Your task to perform on an android device: open the mobile data screen to see how much data has been used Image 0: 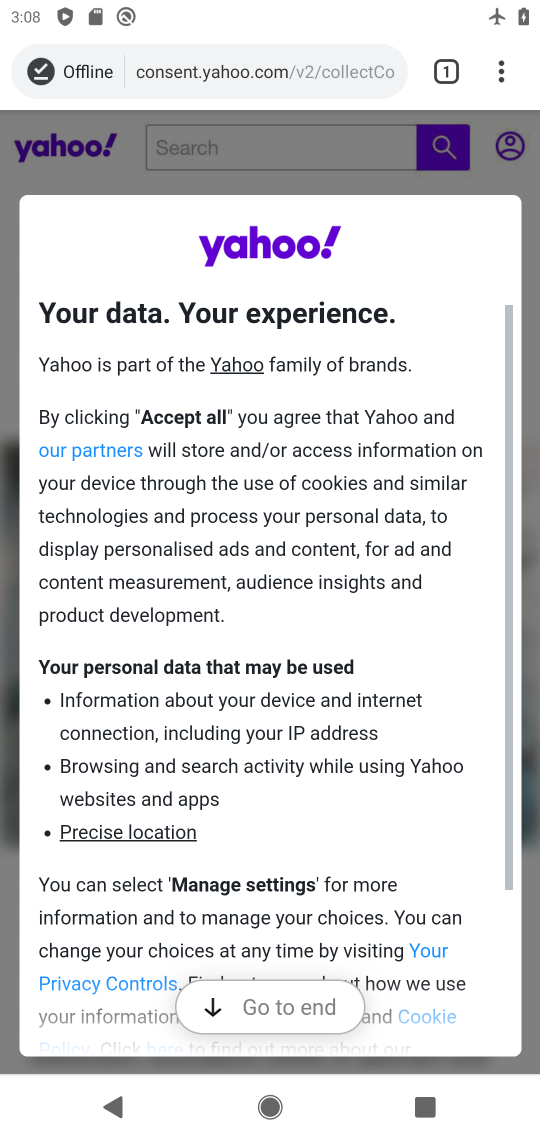
Step 0: press home button
Your task to perform on an android device: open the mobile data screen to see how much data has been used Image 1: 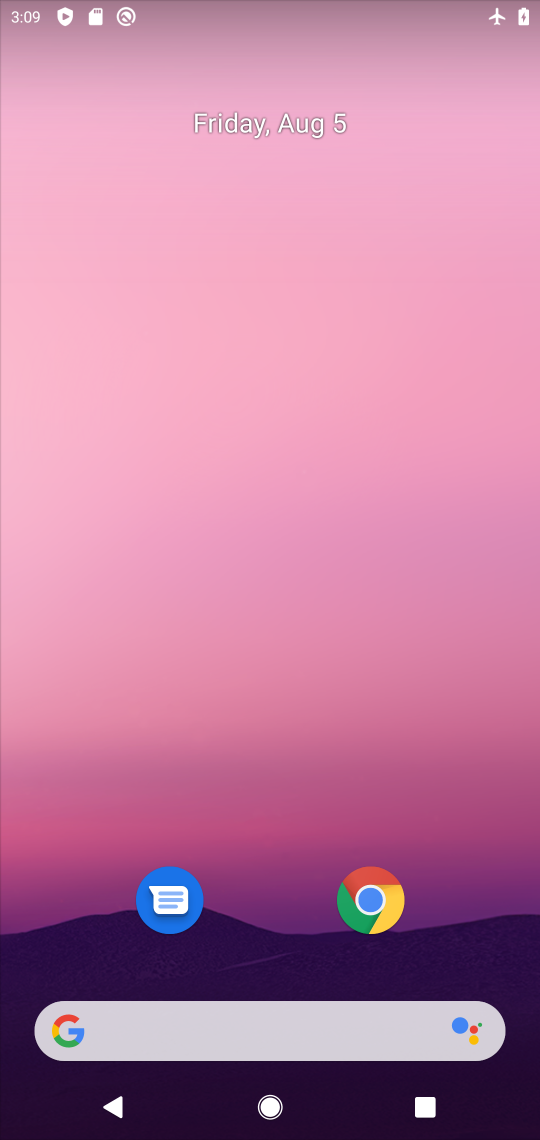
Step 1: drag from (344, 840) to (286, 257)
Your task to perform on an android device: open the mobile data screen to see how much data has been used Image 2: 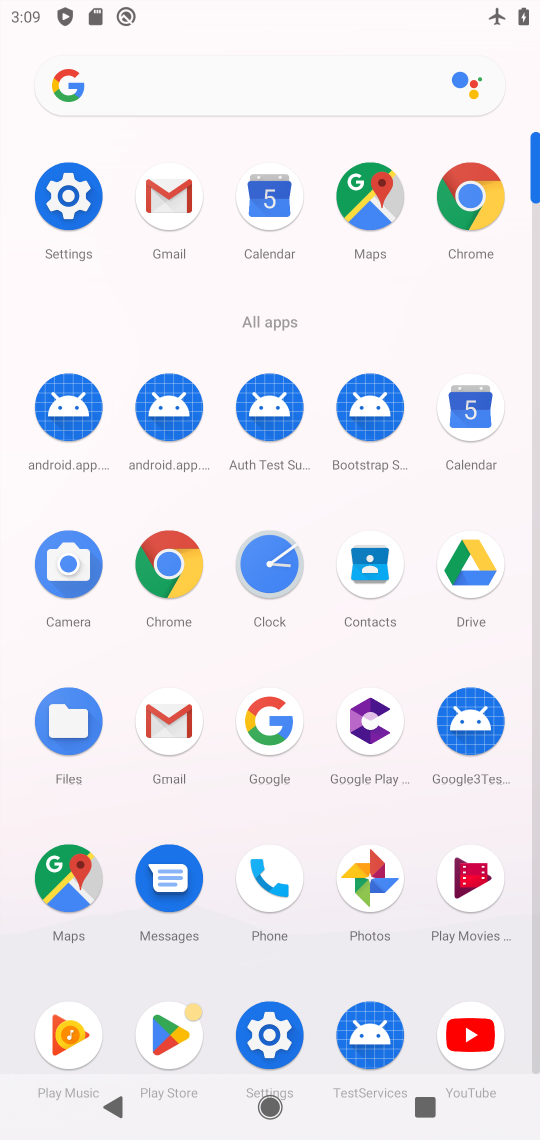
Step 2: click (68, 195)
Your task to perform on an android device: open the mobile data screen to see how much data has been used Image 3: 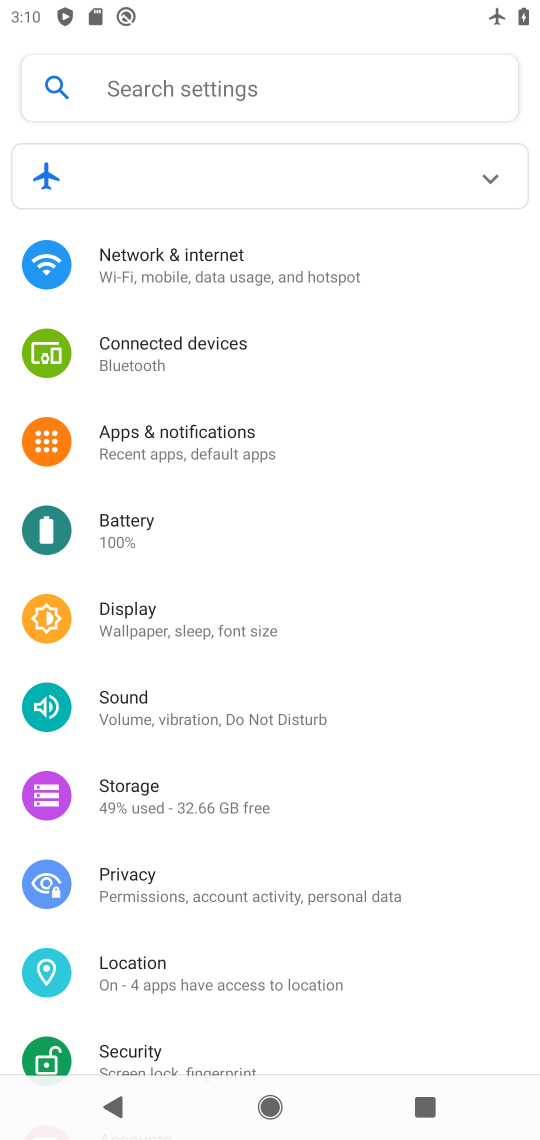
Step 3: click (186, 281)
Your task to perform on an android device: open the mobile data screen to see how much data has been used Image 4: 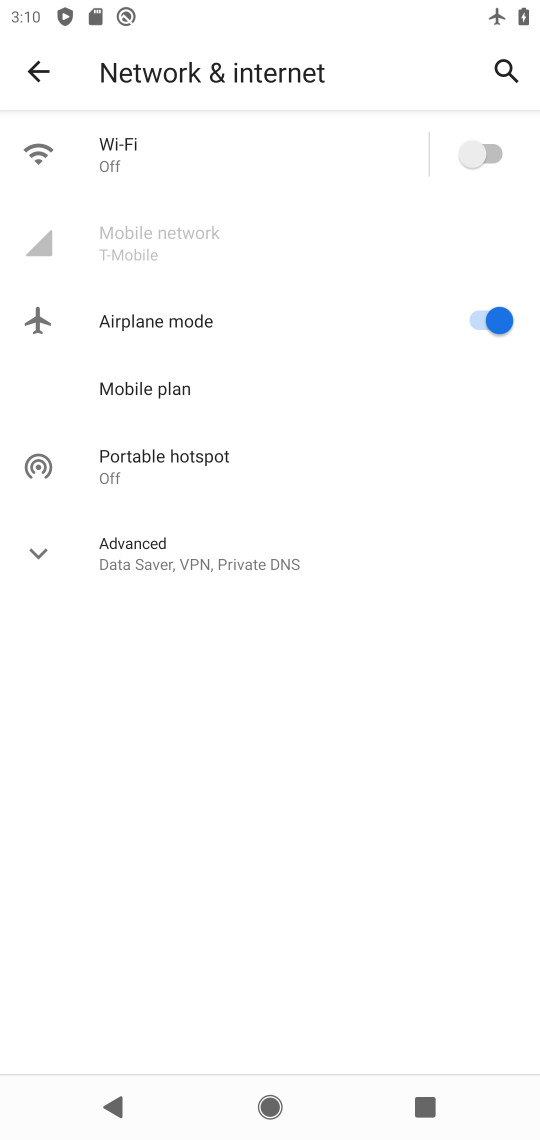
Step 4: click (141, 234)
Your task to perform on an android device: open the mobile data screen to see how much data has been used Image 5: 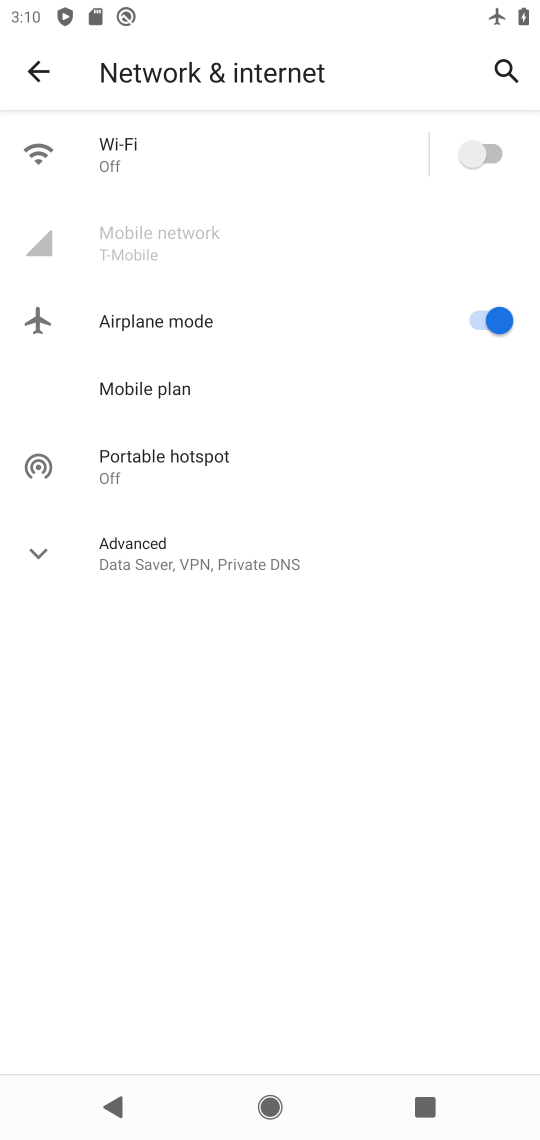
Step 5: drag from (350, 84) to (233, 546)
Your task to perform on an android device: open the mobile data screen to see how much data has been used Image 6: 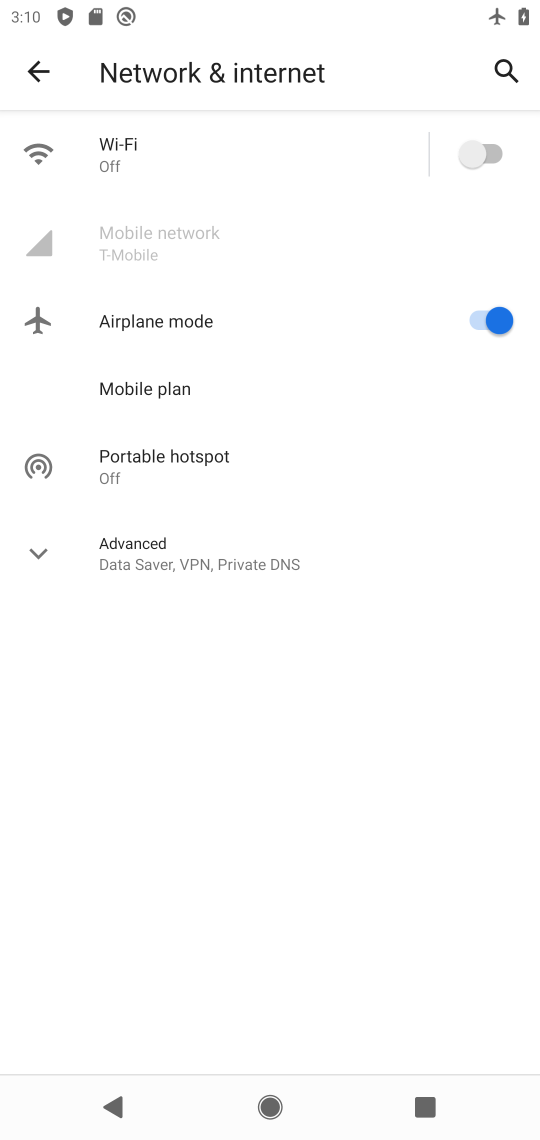
Step 6: click (502, 322)
Your task to perform on an android device: open the mobile data screen to see how much data has been used Image 7: 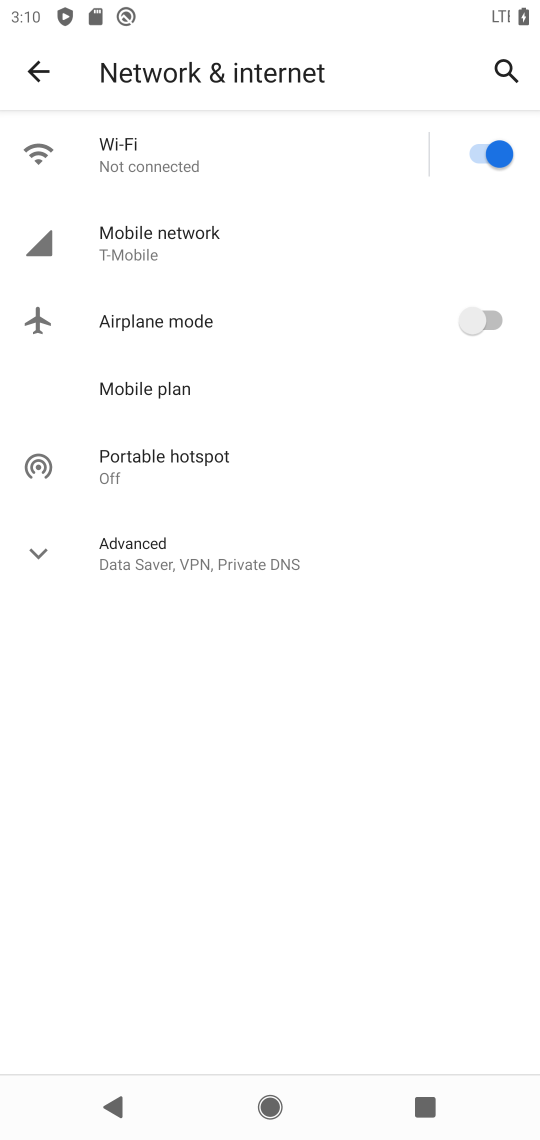
Step 7: click (139, 245)
Your task to perform on an android device: open the mobile data screen to see how much data has been used Image 8: 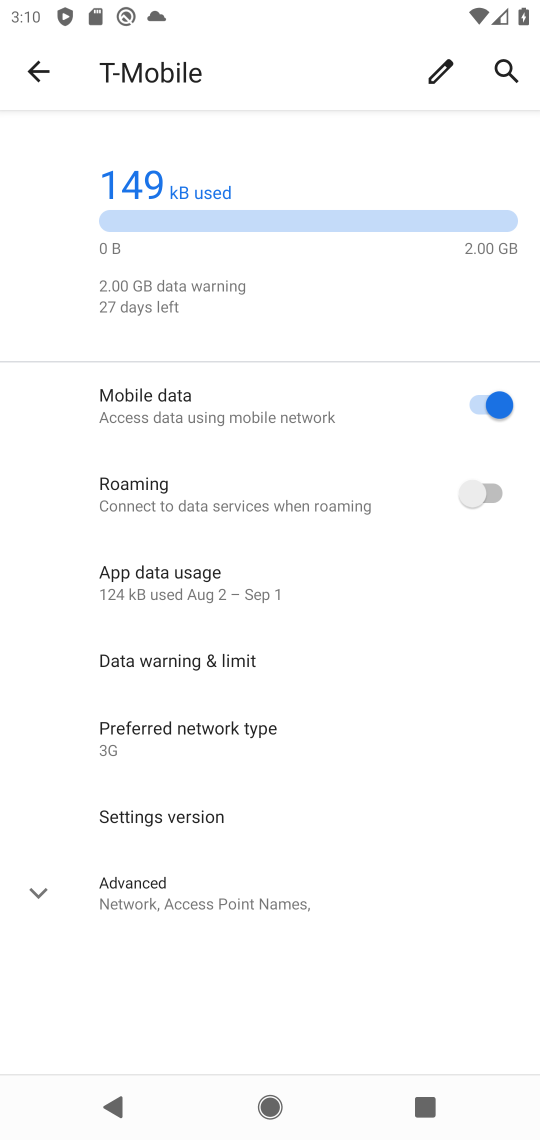
Step 8: click (155, 575)
Your task to perform on an android device: open the mobile data screen to see how much data has been used Image 9: 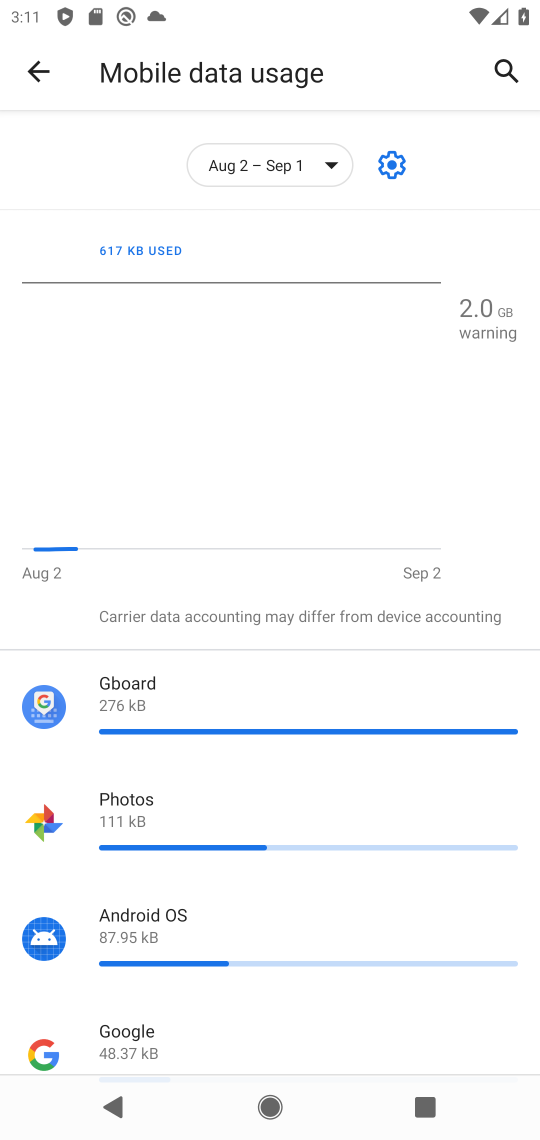
Step 9: task complete